Your task to perform on an android device: Turn off the flashlight Image 0: 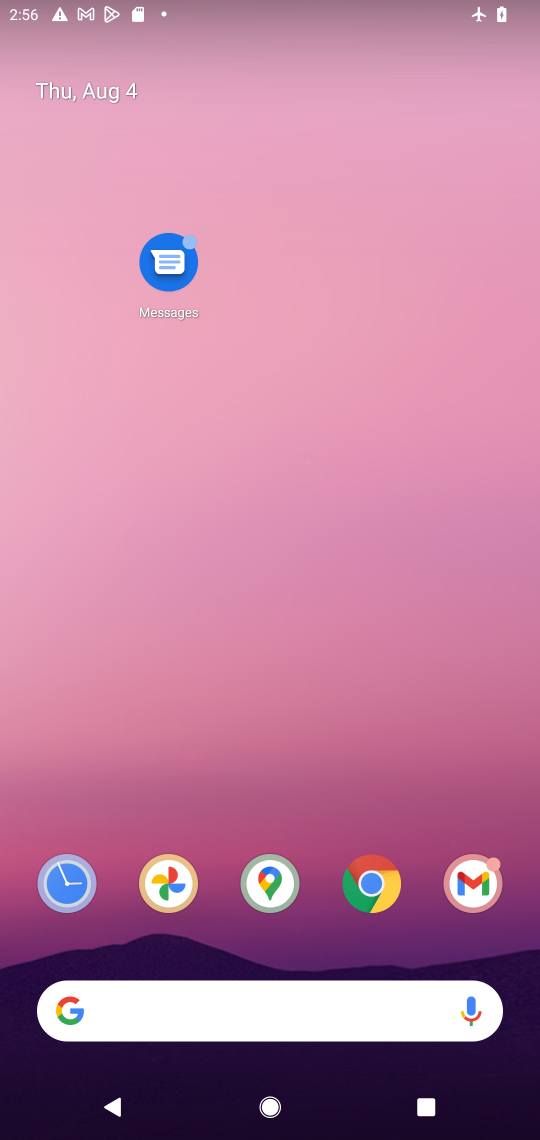
Step 0: drag from (201, 855) to (210, 110)
Your task to perform on an android device: Turn off the flashlight Image 1: 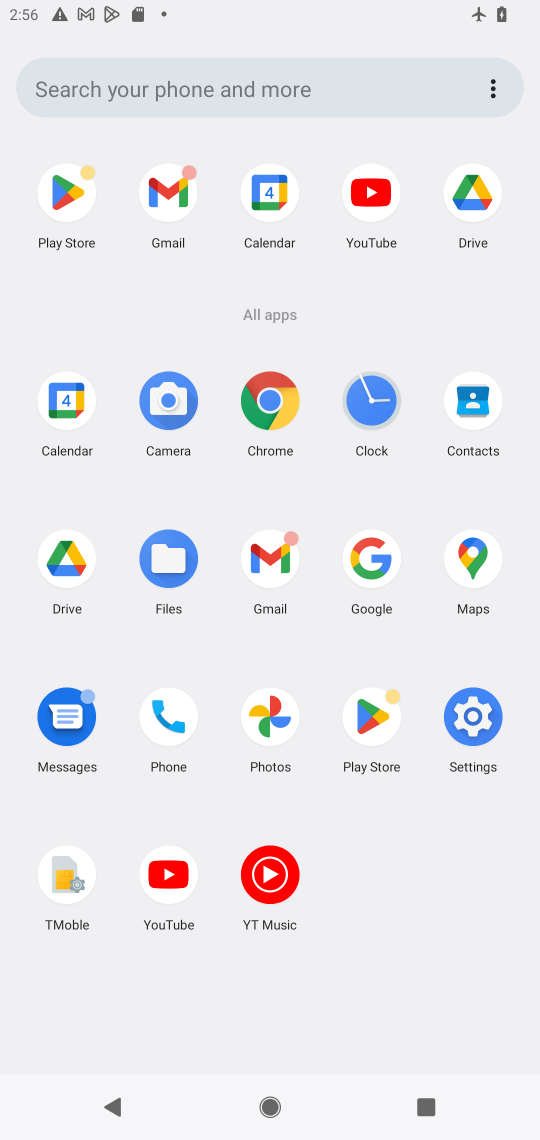
Step 1: click (467, 707)
Your task to perform on an android device: Turn off the flashlight Image 2: 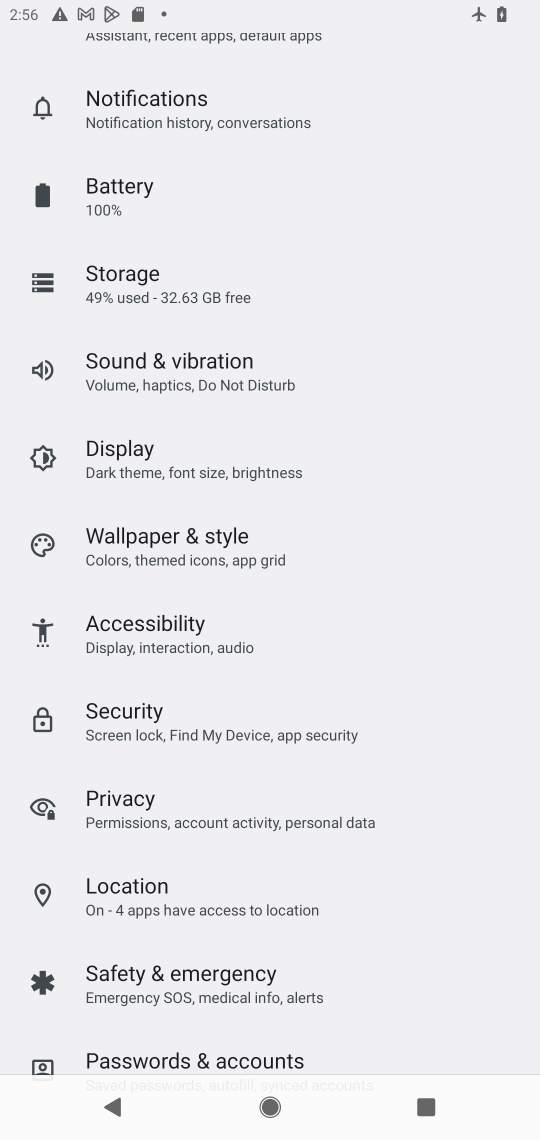
Step 2: task complete